Your task to perform on an android device: Go to Android settings Image 0: 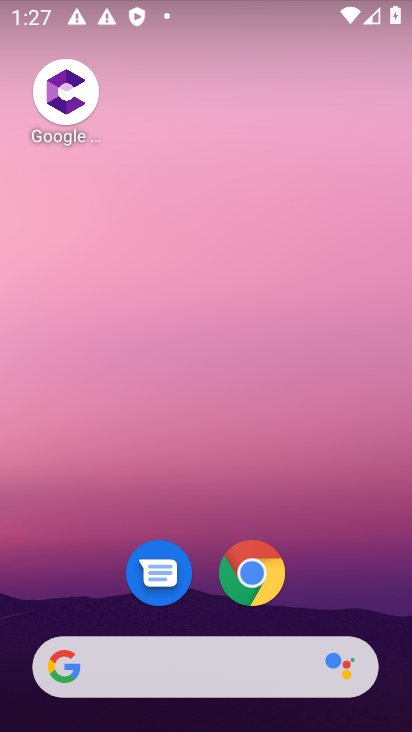
Step 0: drag from (362, 591) to (351, 136)
Your task to perform on an android device: Go to Android settings Image 1: 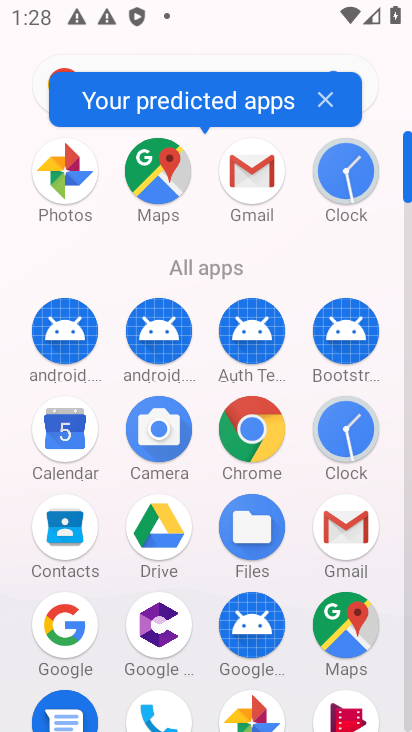
Step 1: drag from (291, 569) to (297, 327)
Your task to perform on an android device: Go to Android settings Image 2: 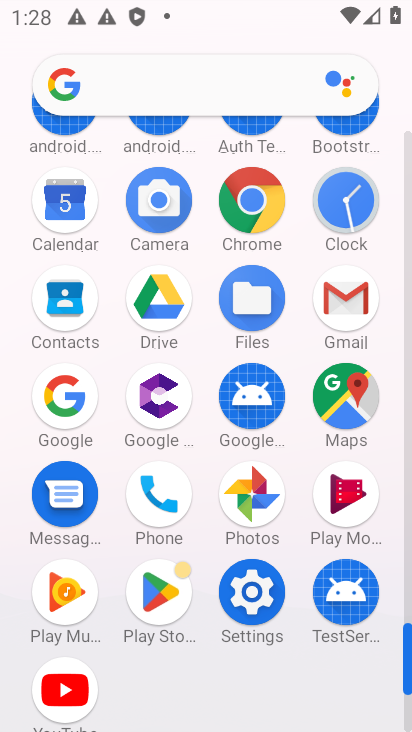
Step 2: click (262, 585)
Your task to perform on an android device: Go to Android settings Image 3: 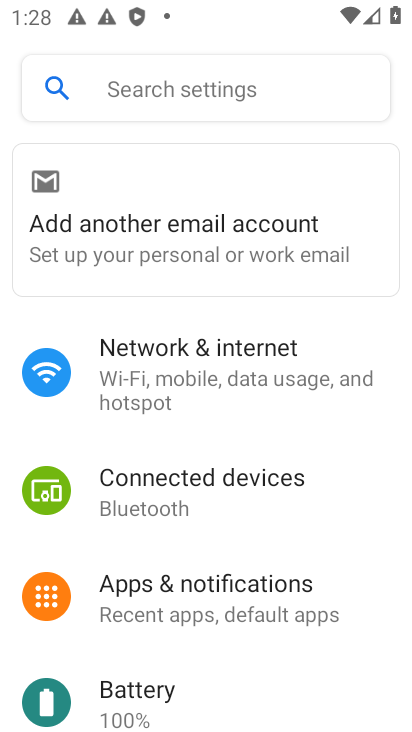
Step 3: drag from (345, 552) to (351, 470)
Your task to perform on an android device: Go to Android settings Image 4: 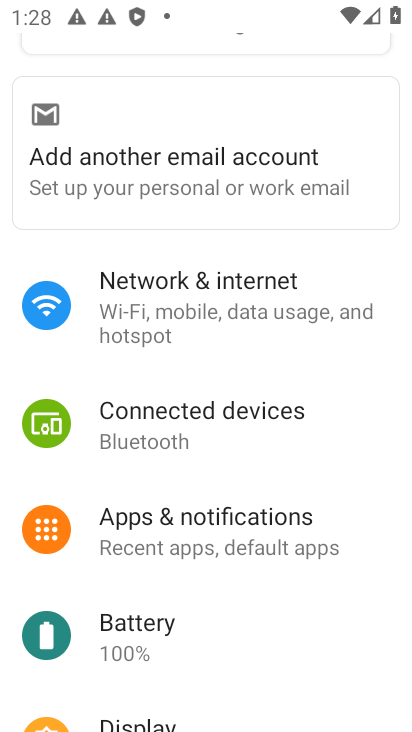
Step 4: drag from (365, 576) to (368, 463)
Your task to perform on an android device: Go to Android settings Image 5: 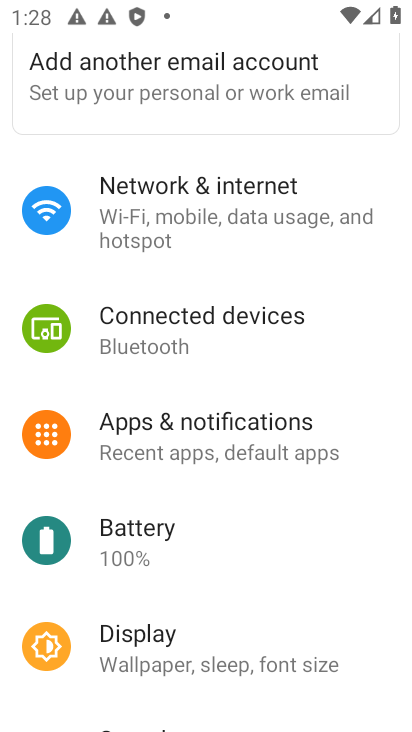
Step 5: drag from (342, 559) to (346, 445)
Your task to perform on an android device: Go to Android settings Image 6: 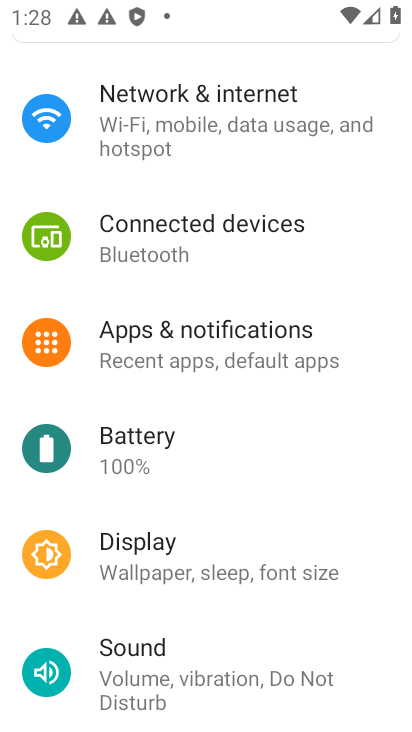
Step 6: drag from (359, 604) to (374, 413)
Your task to perform on an android device: Go to Android settings Image 7: 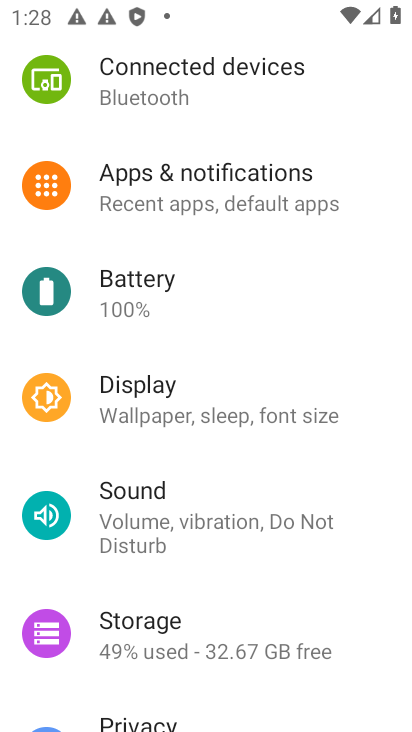
Step 7: drag from (354, 585) to (358, 425)
Your task to perform on an android device: Go to Android settings Image 8: 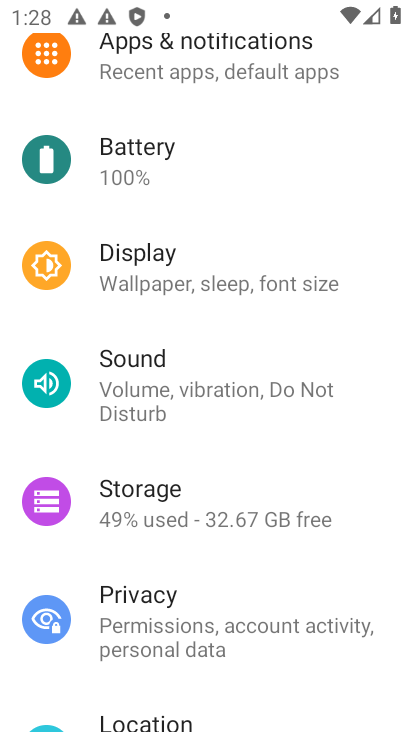
Step 8: drag from (347, 494) to (352, 428)
Your task to perform on an android device: Go to Android settings Image 9: 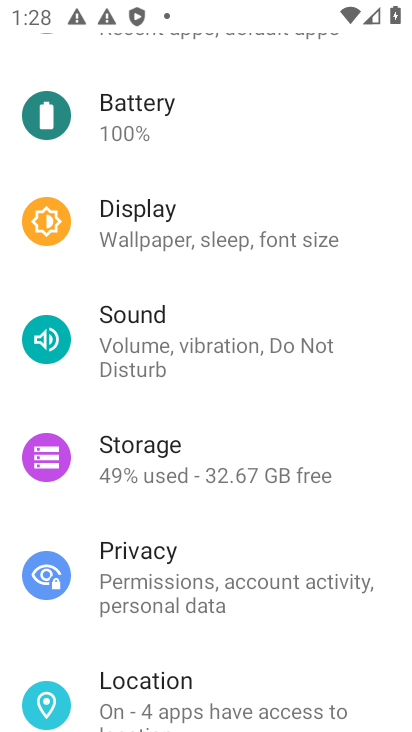
Step 9: drag from (362, 661) to (372, 500)
Your task to perform on an android device: Go to Android settings Image 10: 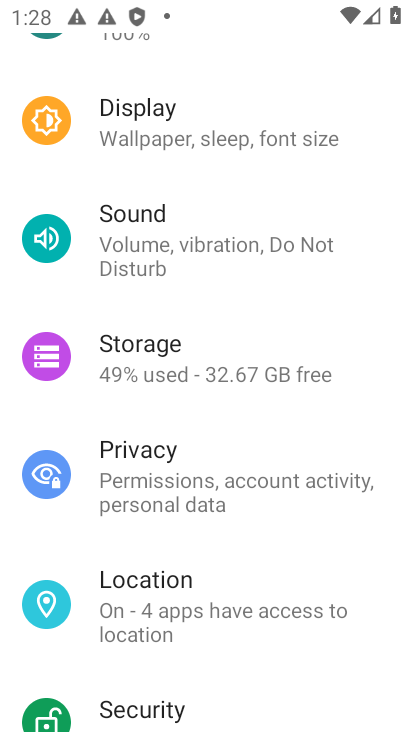
Step 10: drag from (367, 561) to (348, 400)
Your task to perform on an android device: Go to Android settings Image 11: 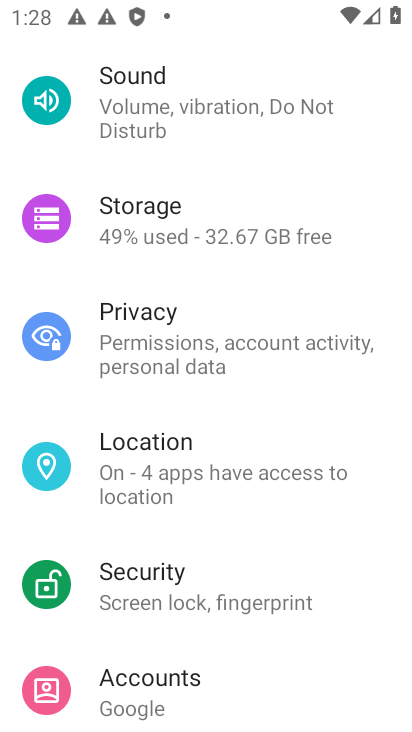
Step 11: drag from (333, 463) to (328, 395)
Your task to perform on an android device: Go to Android settings Image 12: 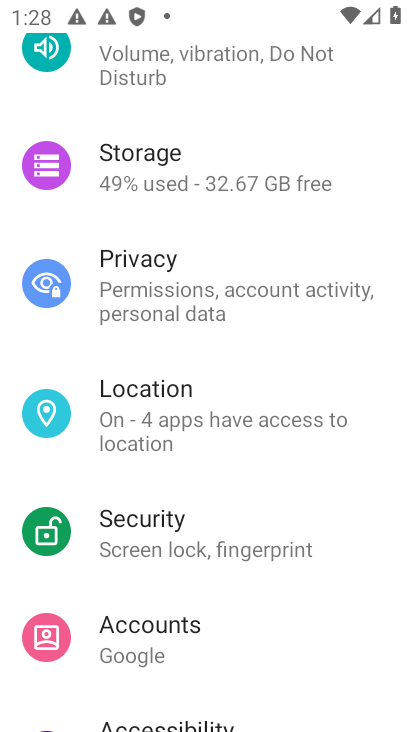
Step 12: drag from (327, 586) to (334, 384)
Your task to perform on an android device: Go to Android settings Image 13: 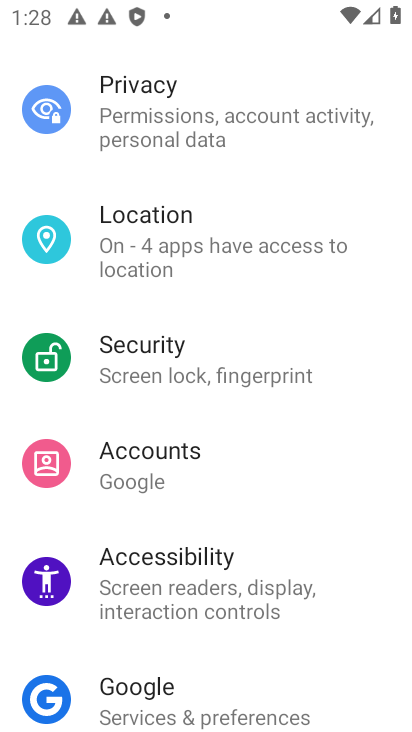
Step 13: drag from (364, 658) to (364, 447)
Your task to perform on an android device: Go to Android settings Image 14: 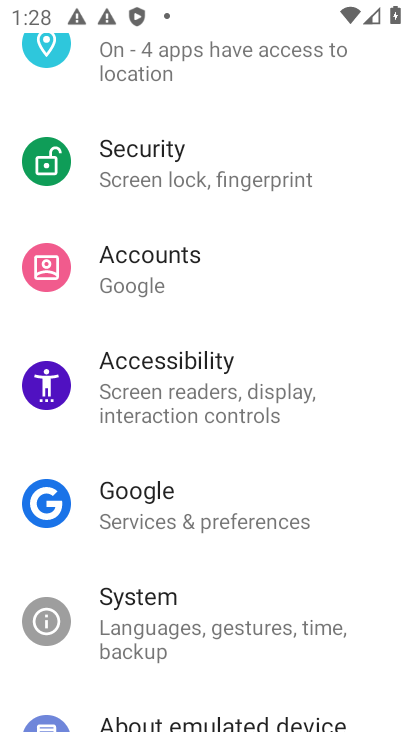
Step 14: click (341, 608)
Your task to perform on an android device: Go to Android settings Image 15: 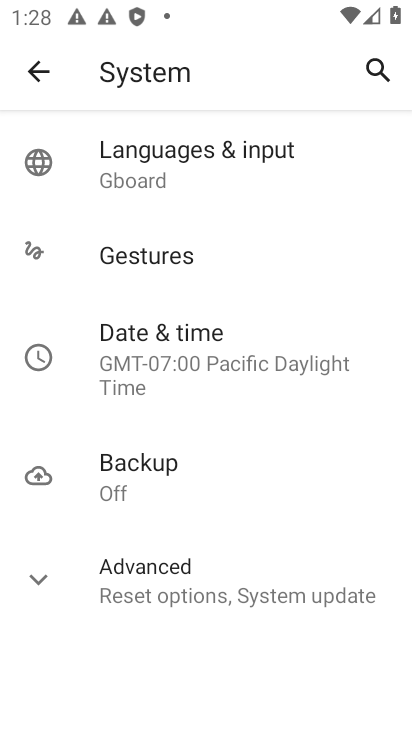
Step 15: click (223, 582)
Your task to perform on an android device: Go to Android settings Image 16: 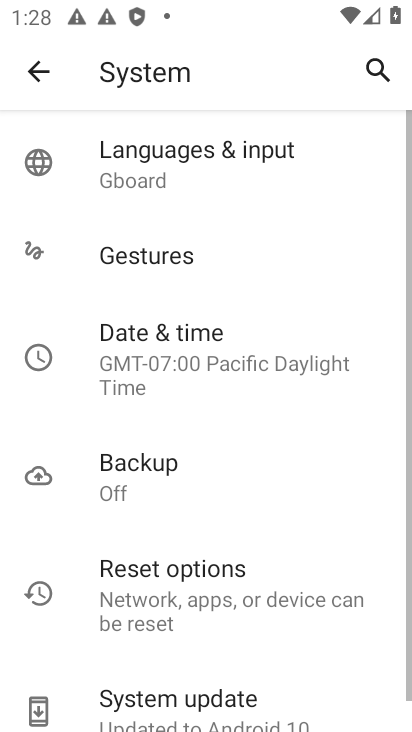
Step 16: task complete